Your task to perform on an android device: change notification settings in the gmail app Image 0: 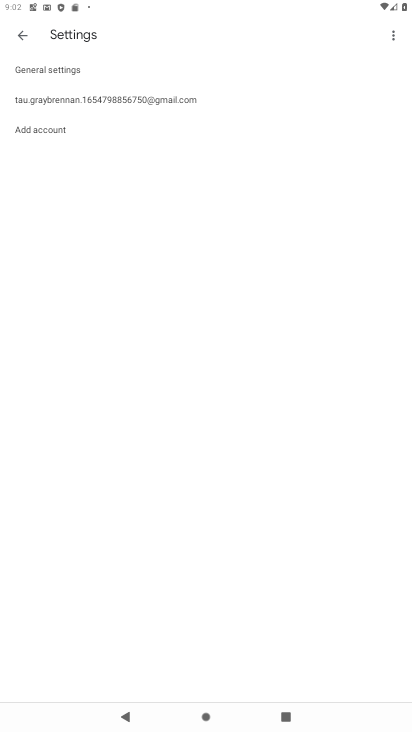
Step 0: press home button
Your task to perform on an android device: change notification settings in the gmail app Image 1: 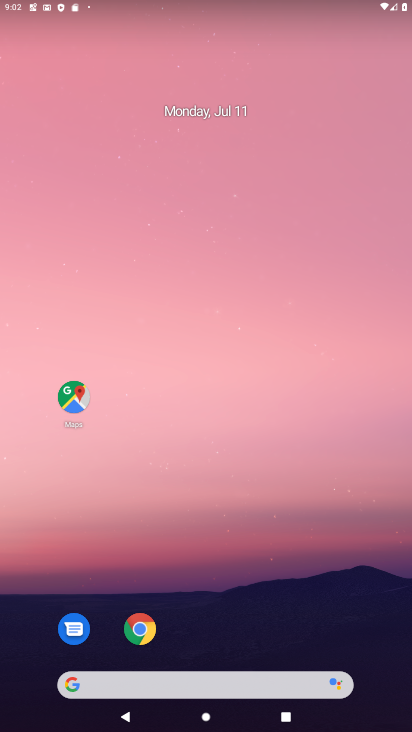
Step 1: drag from (235, 631) to (202, 0)
Your task to perform on an android device: change notification settings in the gmail app Image 2: 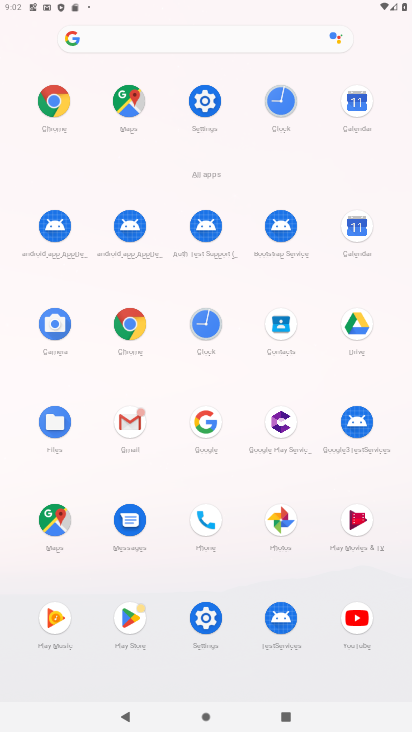
Step 2: click (118, 422)
Your task to perform on an android device: change notification settings in the gmail app Image 3: 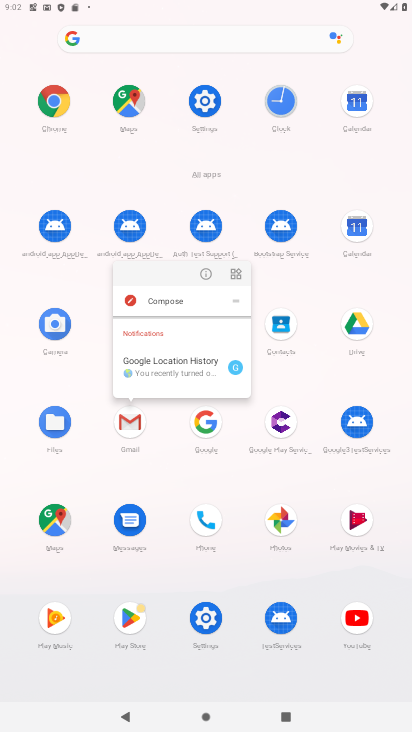
Step 3: click (209, 271)
Your task to perform on an android device: change notification settings in the gmail app Image 4: 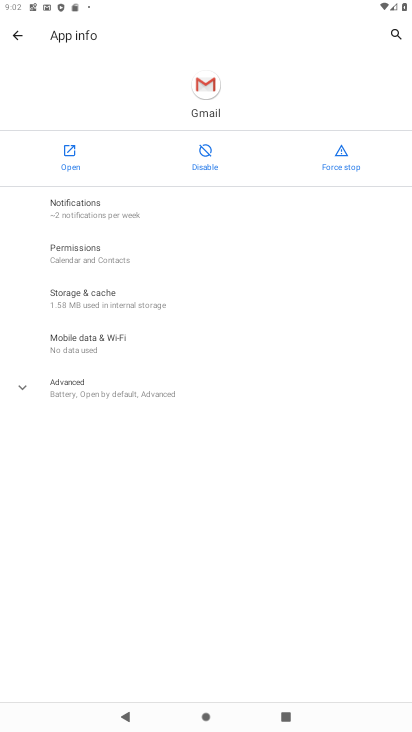
Step 4: click (90, 206)
Your task to perform on an android device: change notification settings in the gmail app Image 5: 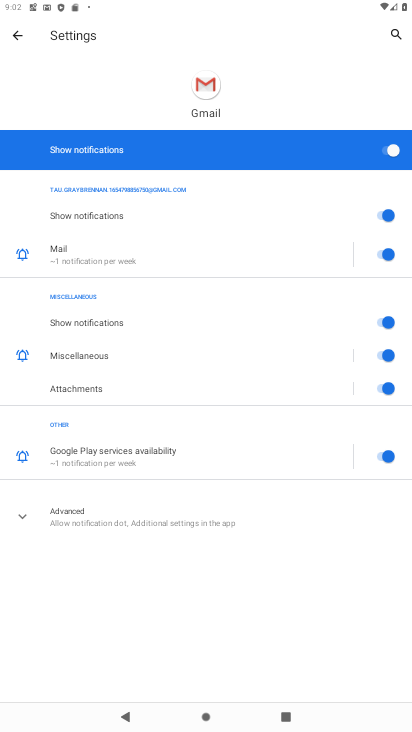
Step 5: click (376, 213)
Your task to perform on an android device: change notification settings in the gmail app Image 6: 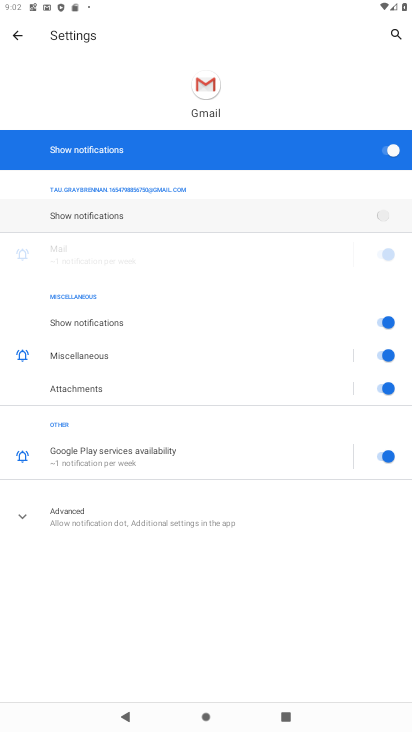
Step 6: click (384, 261)
Your task to perform on an android device: change notification settings in the gmail app Image 7: 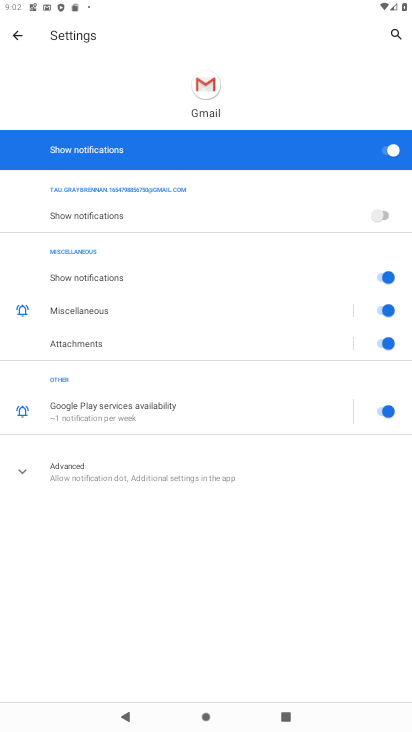
Step 7: click (387, 320)
Your task to perform on an android device: change notification settings in the gmail app Image 8: 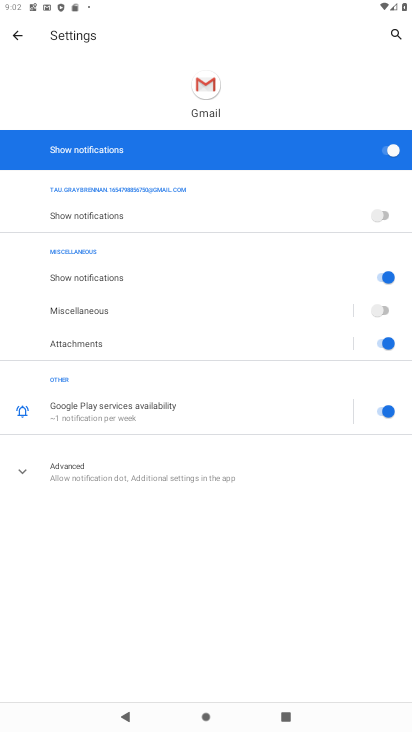
Step 8: task complete